Your task to perform on an android device: check google app version Image 0: 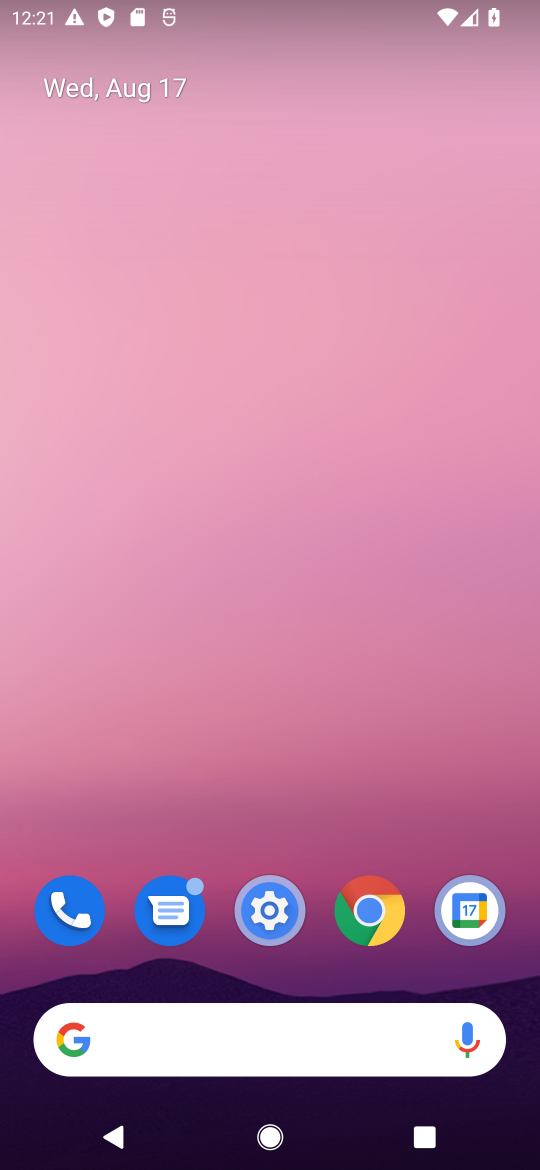
Step 0: drag from (226, 954) to (479, 15)
Your task to perform on an android device: check google app version Image 1: 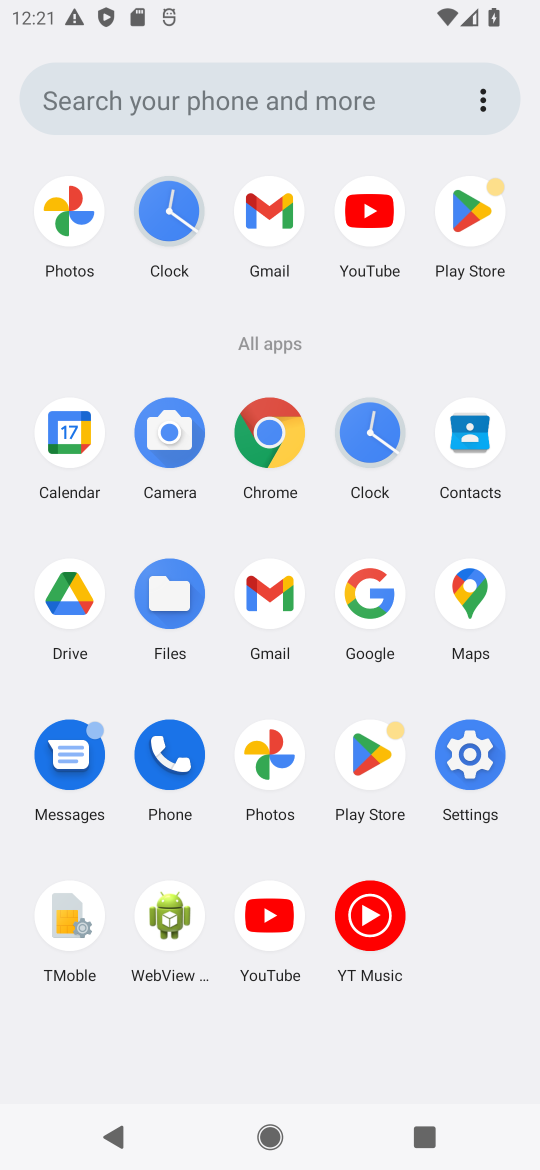
Step 1: click (376, 595)
Your task to perform on an android device: check google app version Image 2: 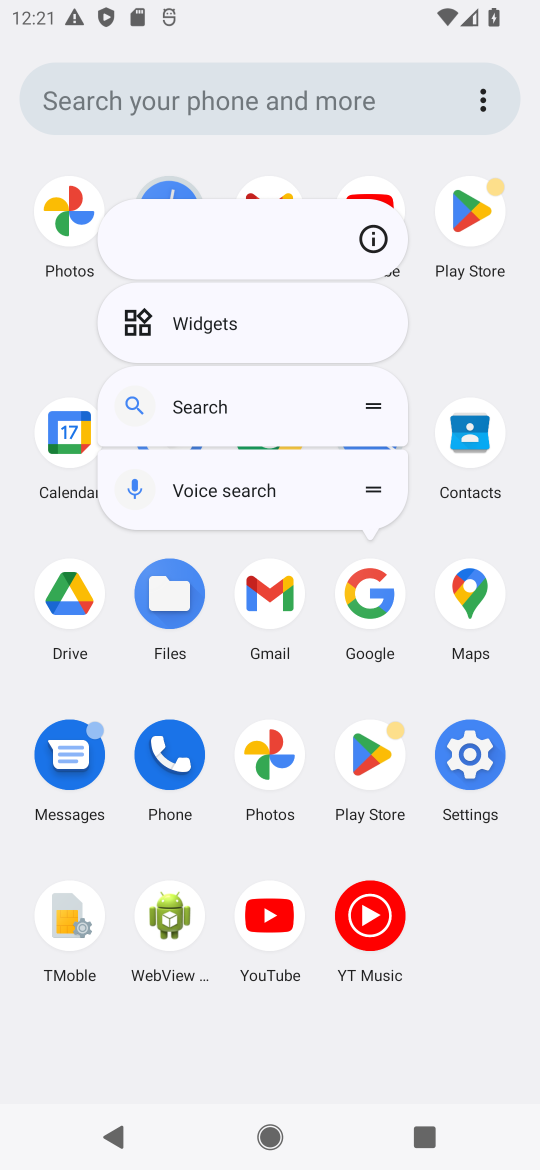
Step 2: click (367, 239)
Your task to perform on an android device: check google app version Image 3: 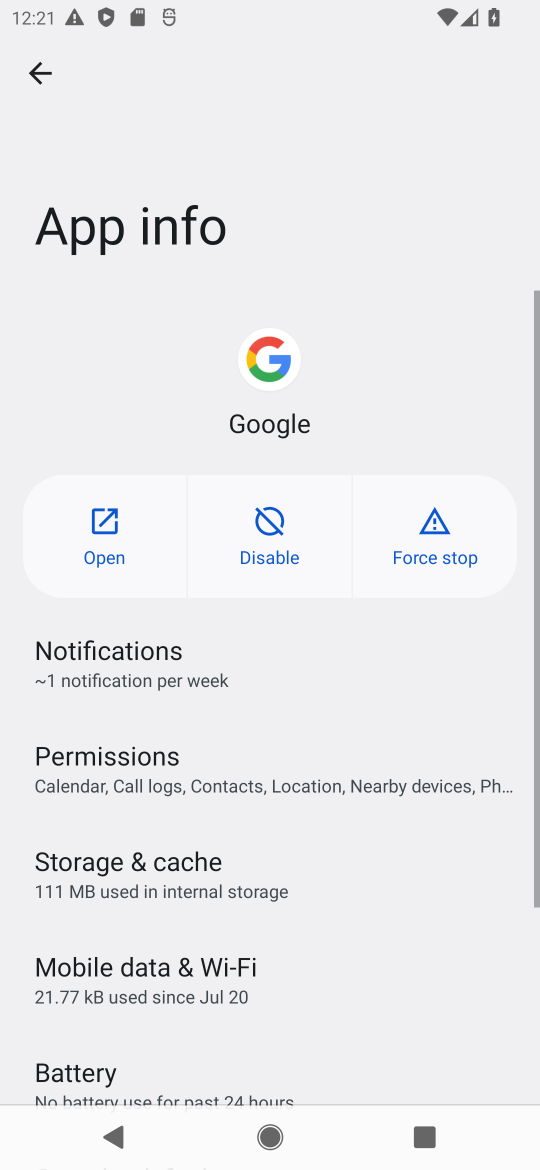
Step 3: task complete